Your task to perform on an android device: refresh tabs in the chrome app Image 0: 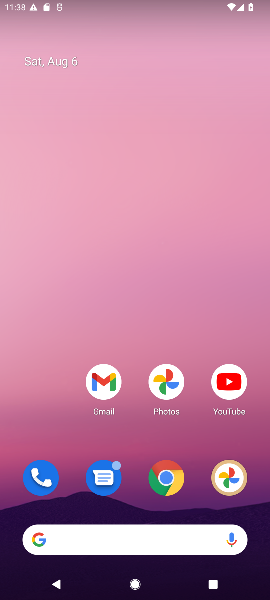
Step 0: click (159, 480)
Your task to perform on an android device: refresh tabs in the chrome app Image 1: 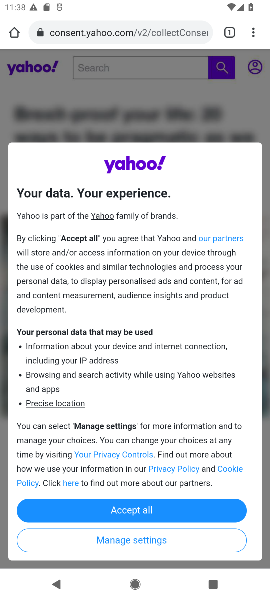
Step 1: click (250, 36)
Your task to perform on an android device: refresh tabs in the chrome app Image 2: 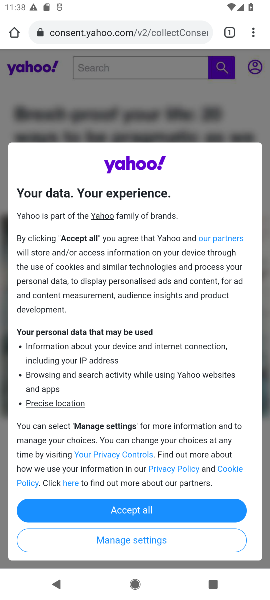
Step 2: click (251, 31)
Your task to perform on an android device: refresh tabs in the chrome app Image 3: 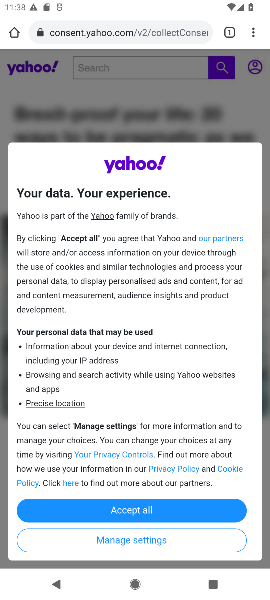
Step 3: click (254, 32)
Your task to perform on an android device: refresh tabs in the chrome app Image 4: 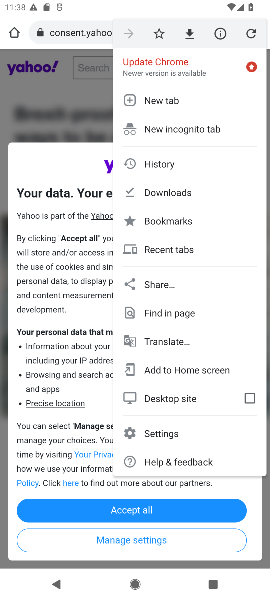
Step 4: click (252, 33)
Your task to perform on an android device: refresh tabs in the chrome app Image 5: 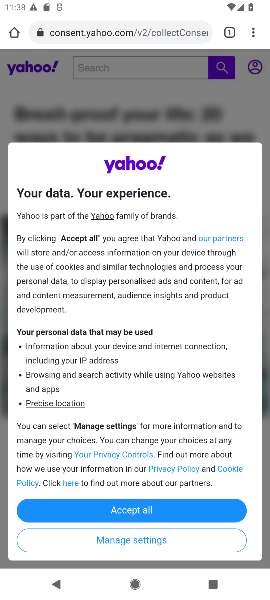
Step 5: task complete